Your task to perform on an android device: turn off priority inbox in the gmail app Image 0: 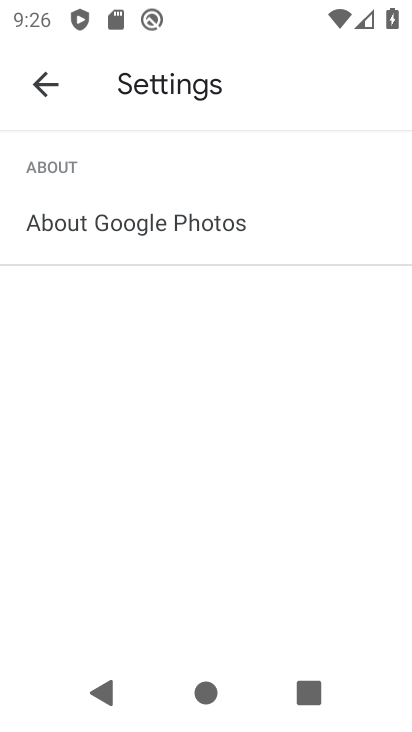
Step 0: press home button
Your task to perform on an android device: turn off priority inbox in the gmail app Image 1: 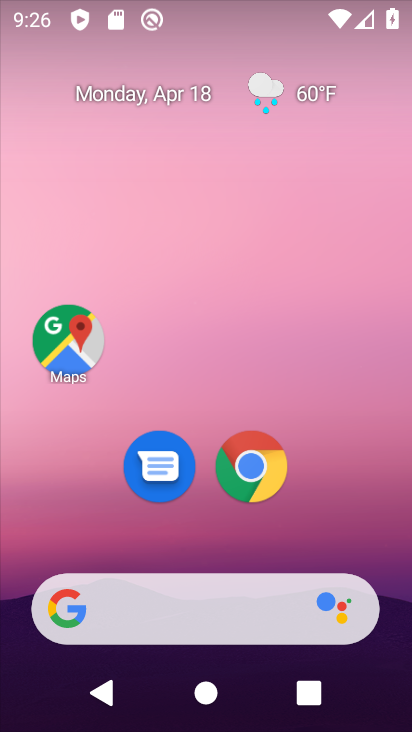
Step 1: drag from (211, 436) to (225, 31)
Your task to perform on an android device: turn off priority inbox in the gmail app Image 2: 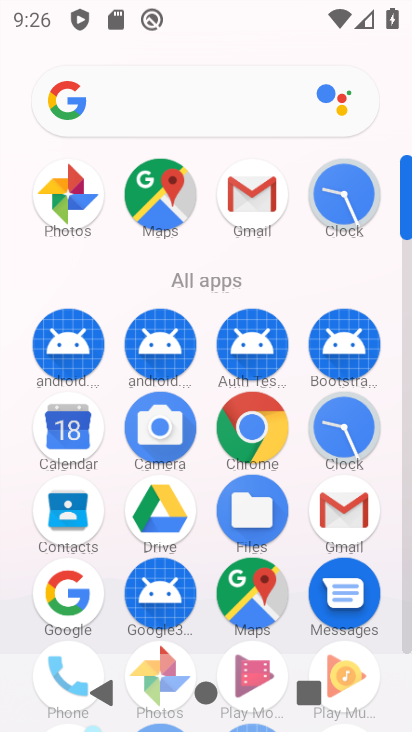
Step 2: click (340, 504)
Your task to perform on an android device: turn off priority inbox in the gmail app Image 3: 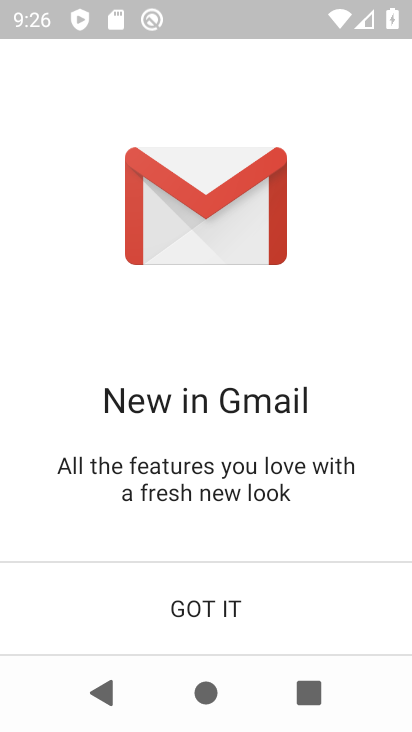
Step 3: click (247, 594)
Your task to perform on an android device: turn off priority inbox in the gmail app Image 4: 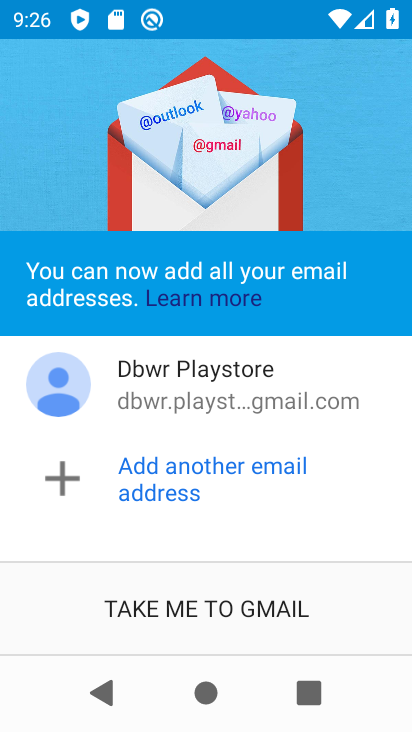
Step 4: click (247, 594)
Your task to perform on an android device: turn off priority inbox in the gmail app Image 5: 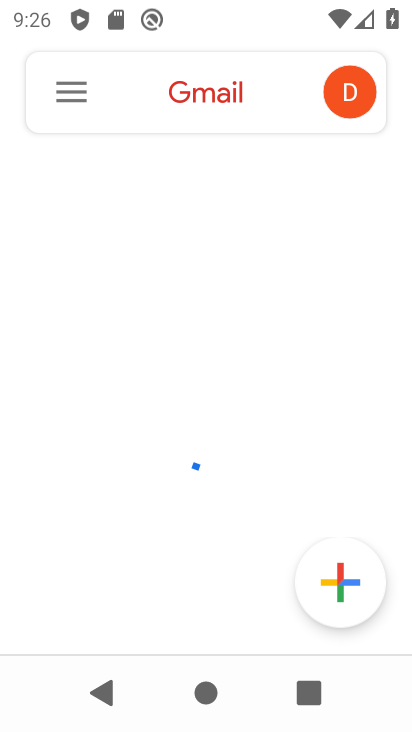
Step 5: click (70, 92)
Your task to perform on an android device: turn off priority inbox in the gmail app Image 6: 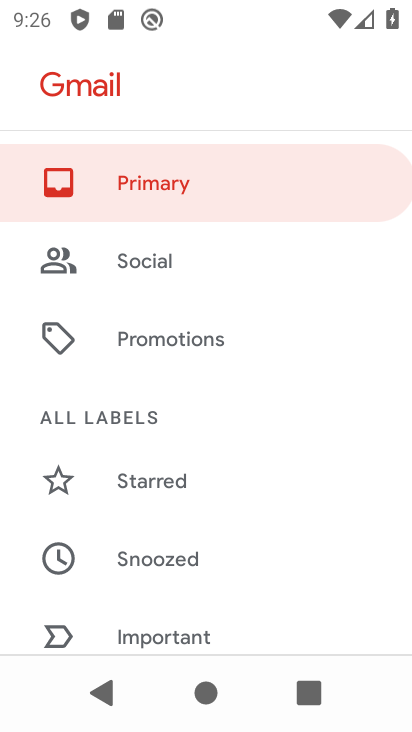
Step 6: drag from (210, 587) to (270, 113)
Your task to perform on an android device: turn off priority inbox in the gmail app Image 7: 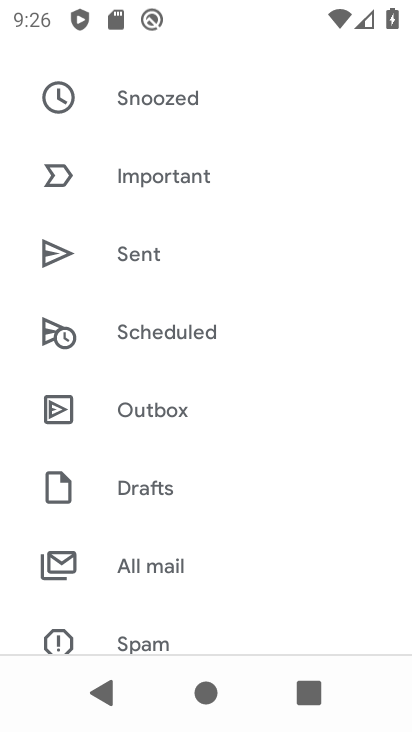
Step 7: drag from (193, 614) to (267, 219)
Your task to perform on an android device: turn off priority inbox in the gmail app Image 8: 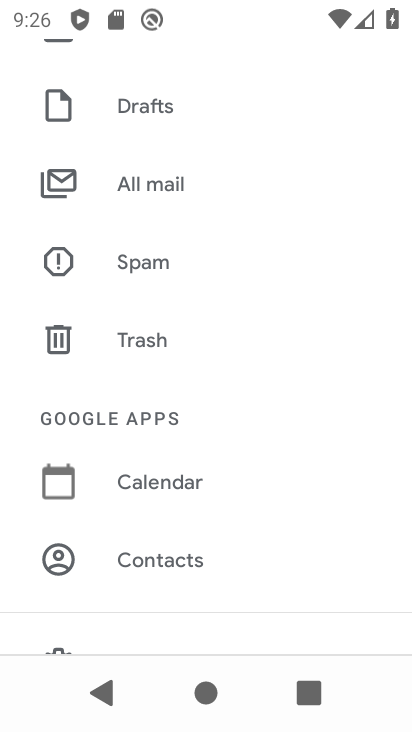
Step 8: drag from (152, 563) to (193, 225)
Your task to perform on an android device: turn off priority inbox in the gmail app Image 9: 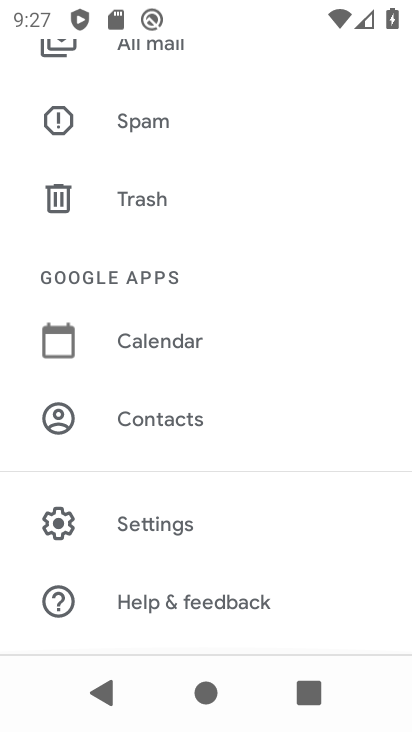
Step 9: click (185, 505)
Your task to perform on an android device: turn off priority inbox in the gmail app Image 10: 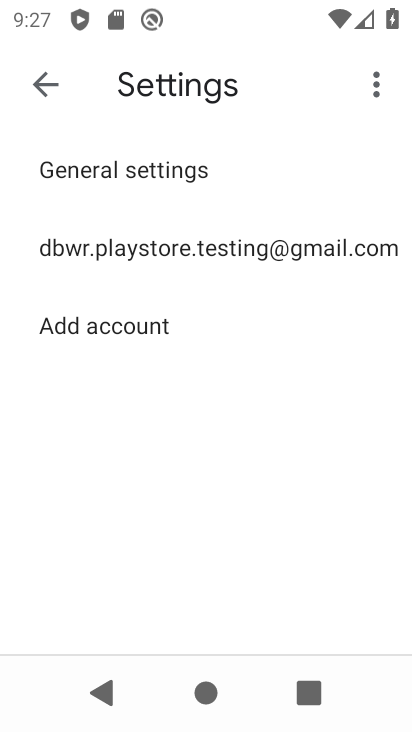
Step 10: click (166, 256)
Your task to perform on an android device: turn off priority inbox in the gmail app Image 11: 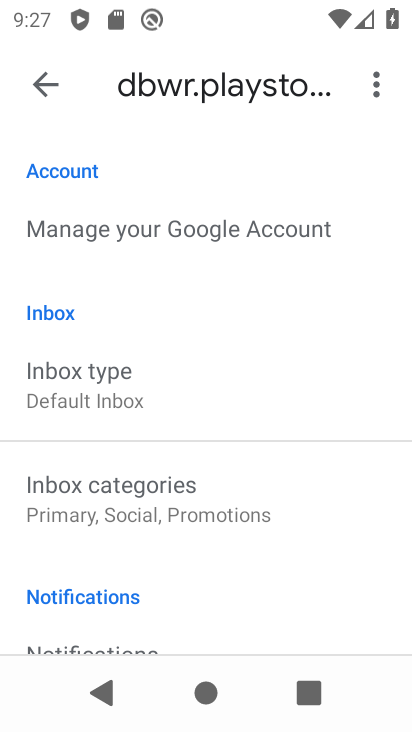
Step 11: click (120, 401)
Your task to perform on an android device: turn off priority inbox in the gmail app Image 12: 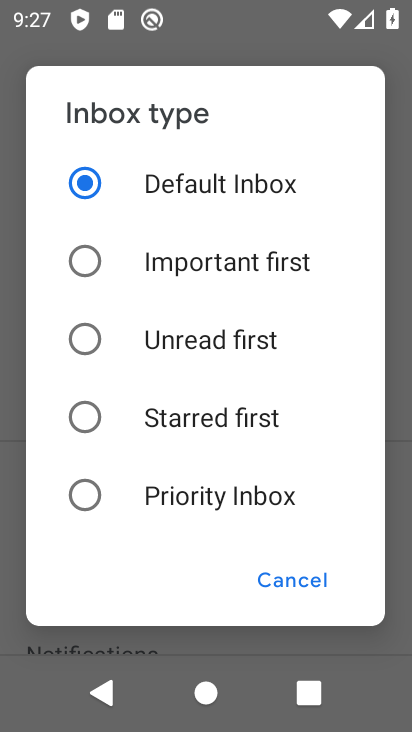
Step 12: task complete